Your task to perform on an android device: create a new album in the google photos Image 0: 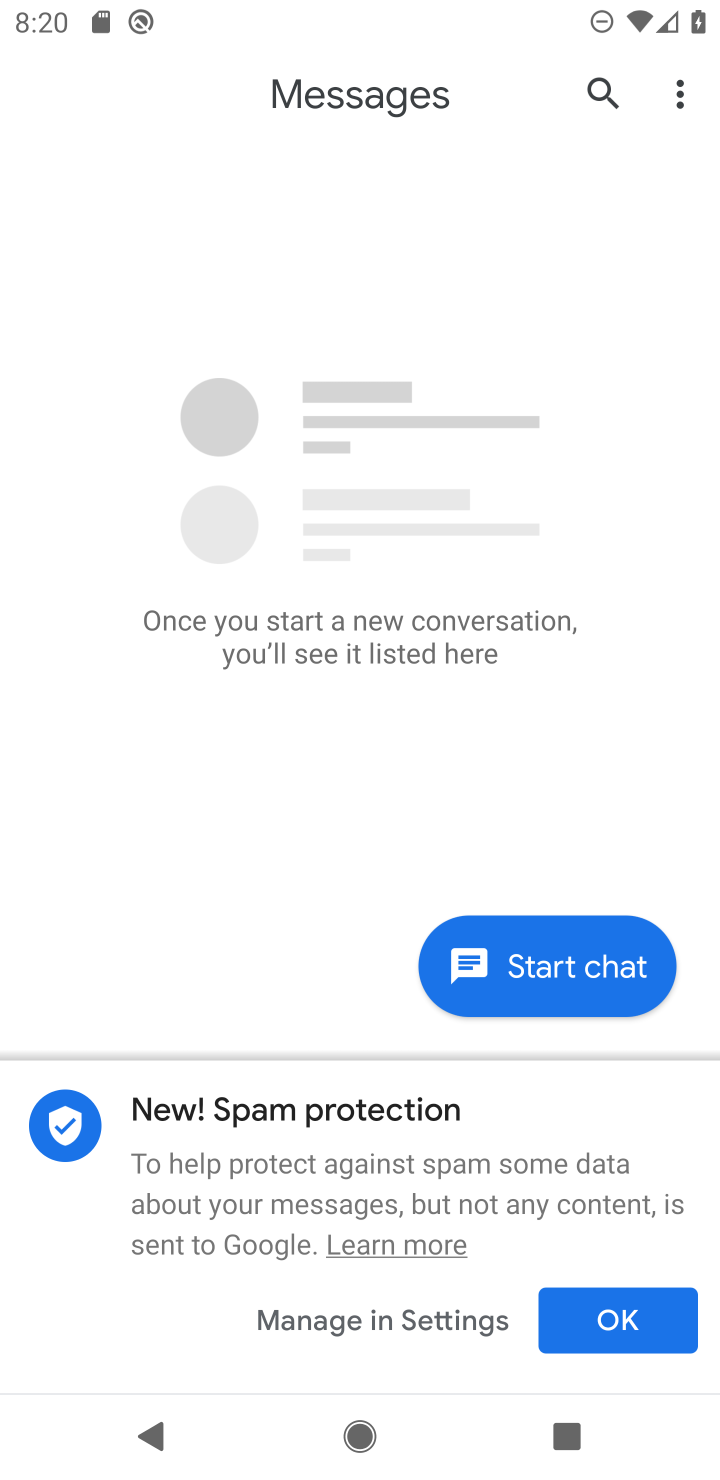
Step 0: press home button
Your task to perform on an android device: create a new album in the google photos Image 1: 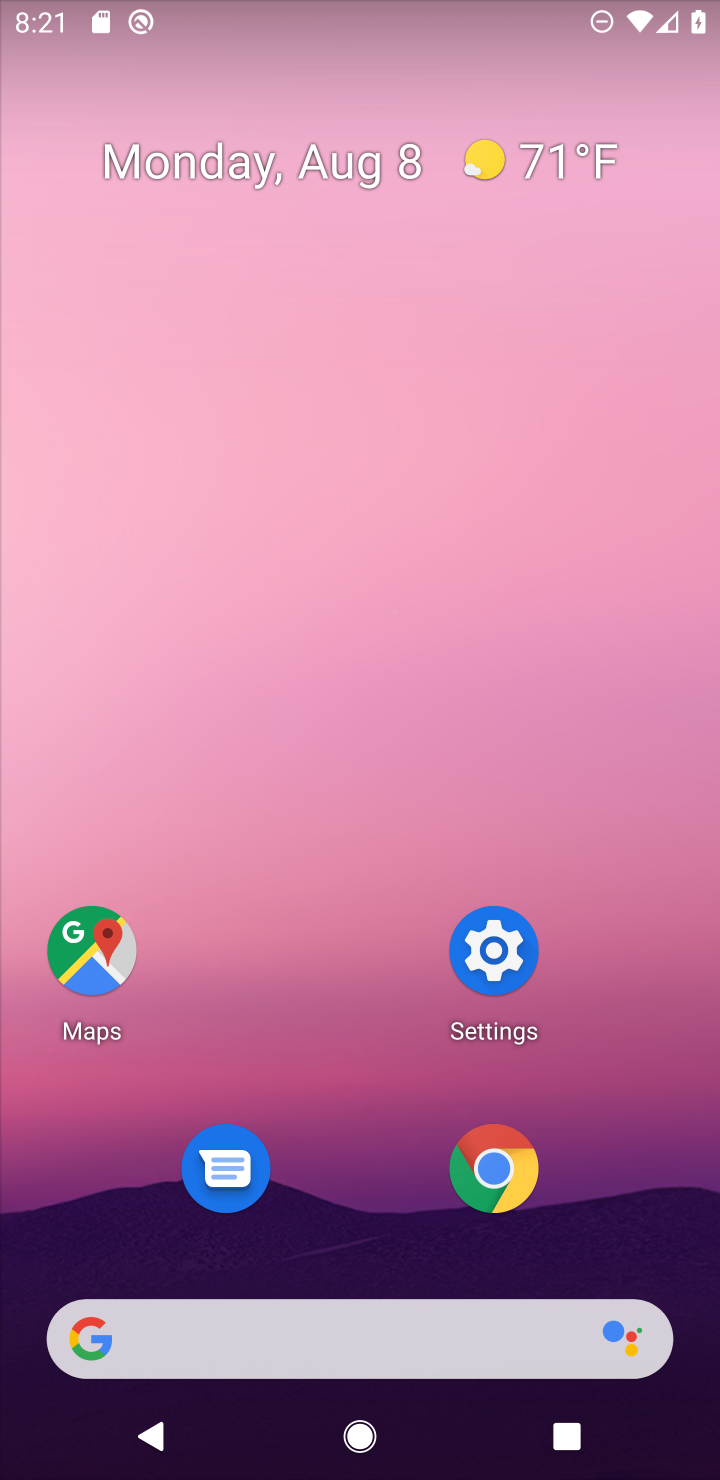
Step 1: drag from (358, 1281) to (639, 320)
Your task to perform on an android device: create a new album in the google photos Image 2: 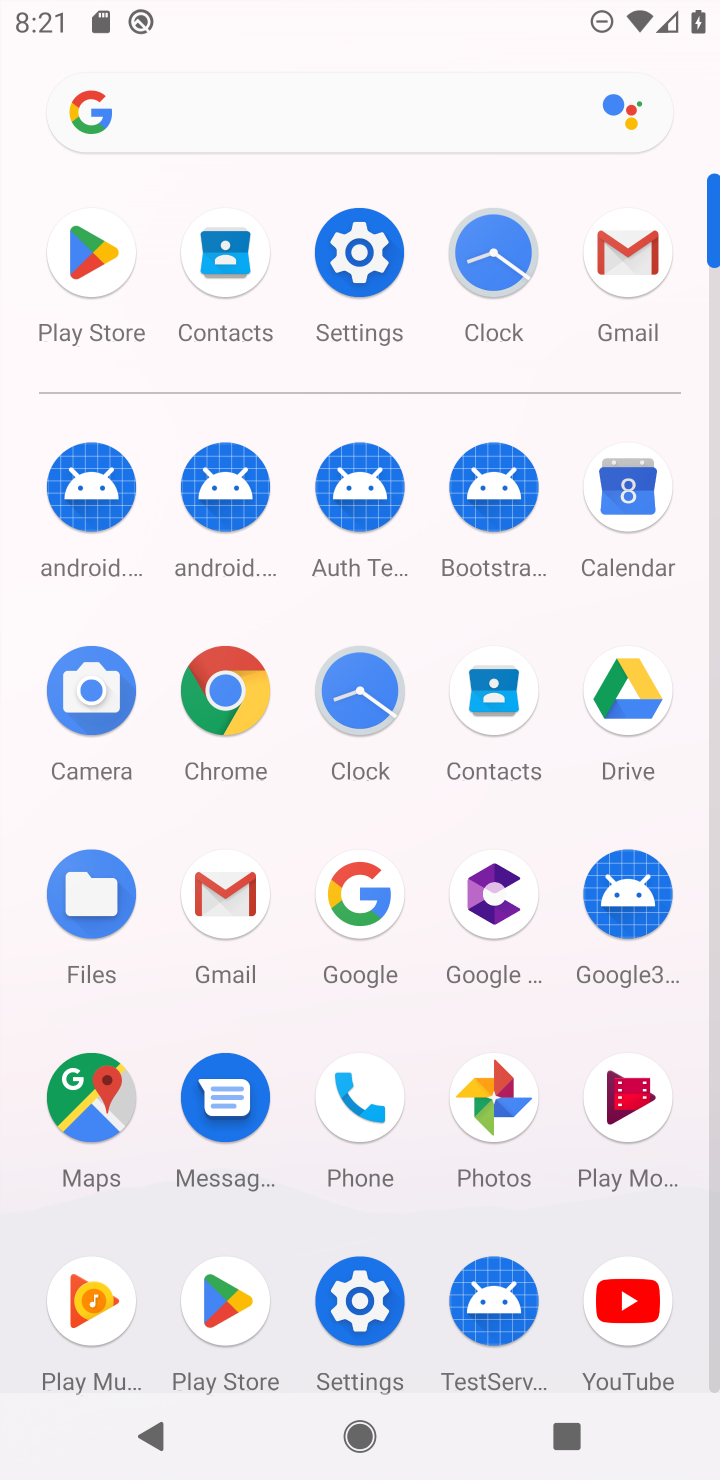
Step 2: click (502, 1091)
Your task to perform on an android device: create a new album in the google photos Image 3: 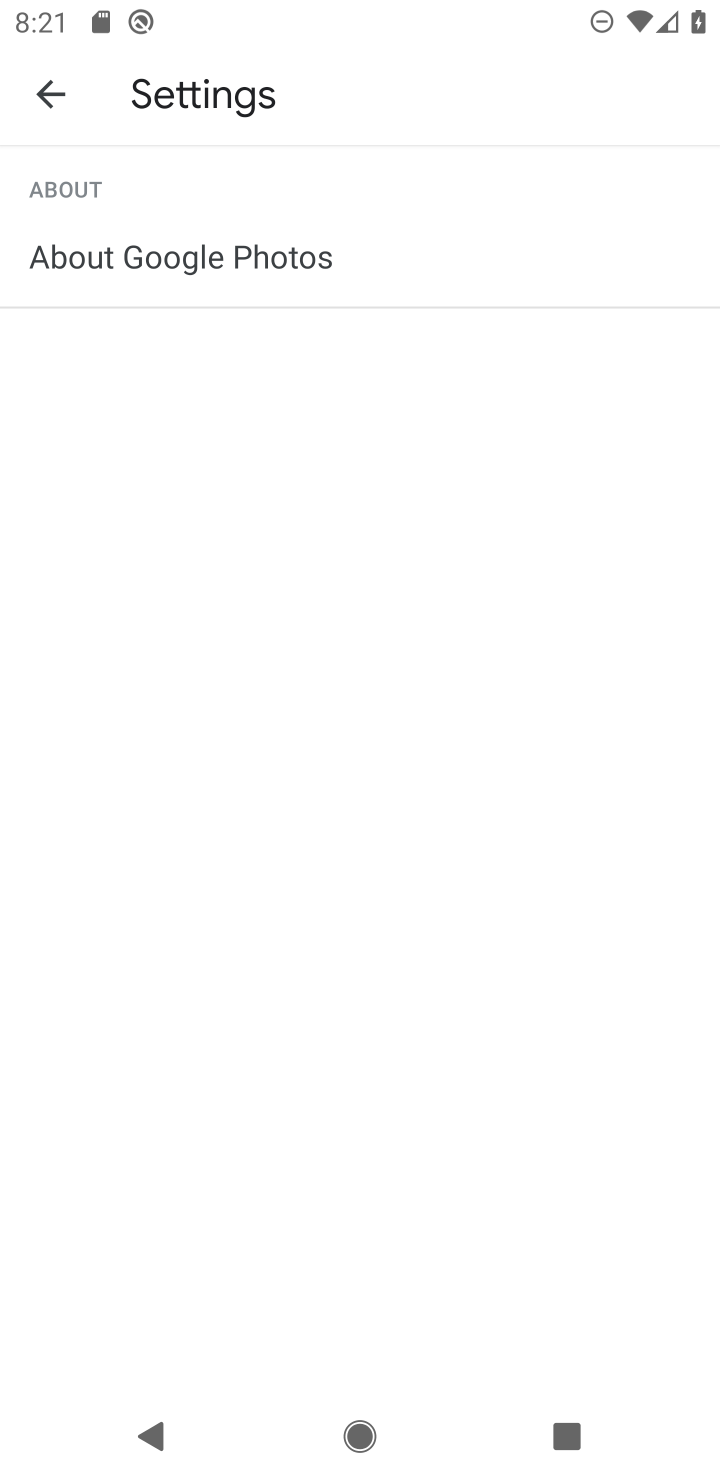
Step 3: click (47, 82)
Your task to perform on an android device: create a new album in the google photos Image 4: 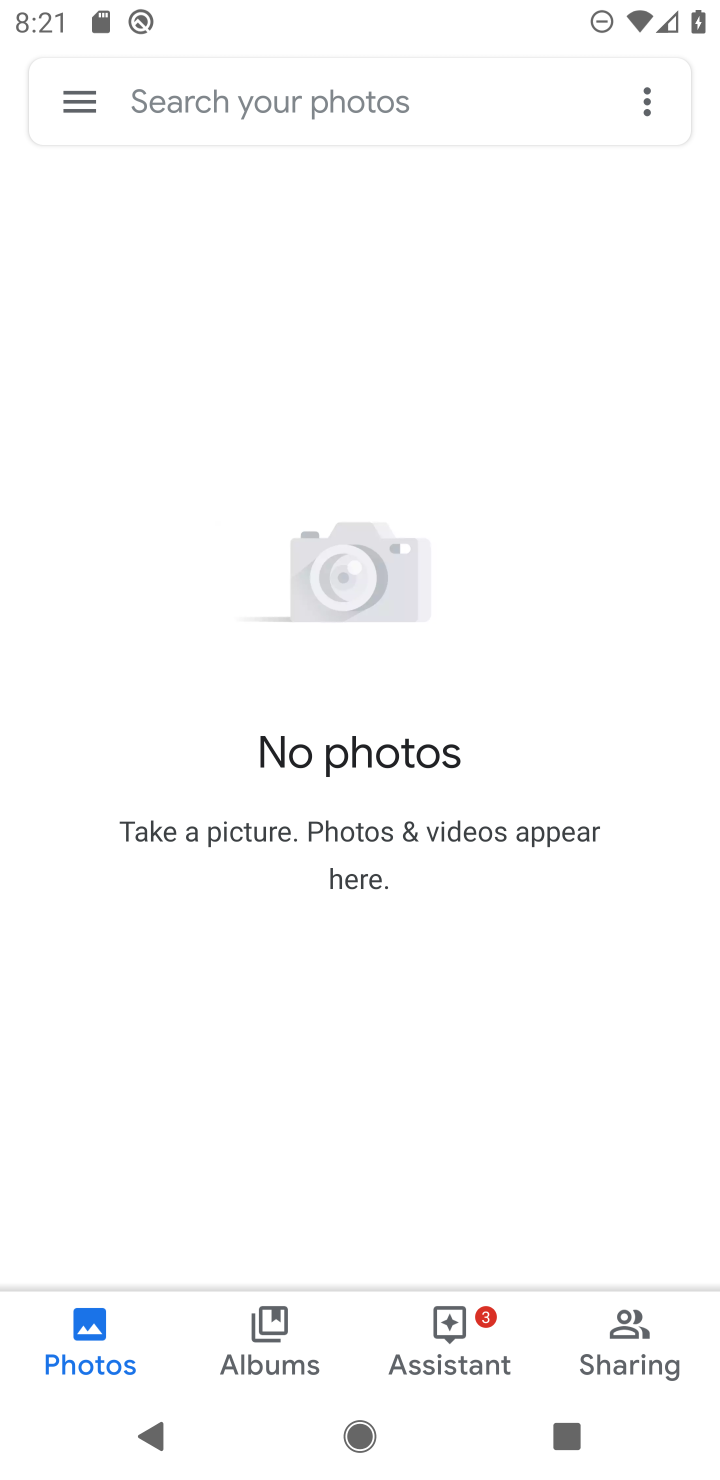
Step 4: click (265, 1323)
Your task to perform on an android device: create a new album in the google photos Image 5: 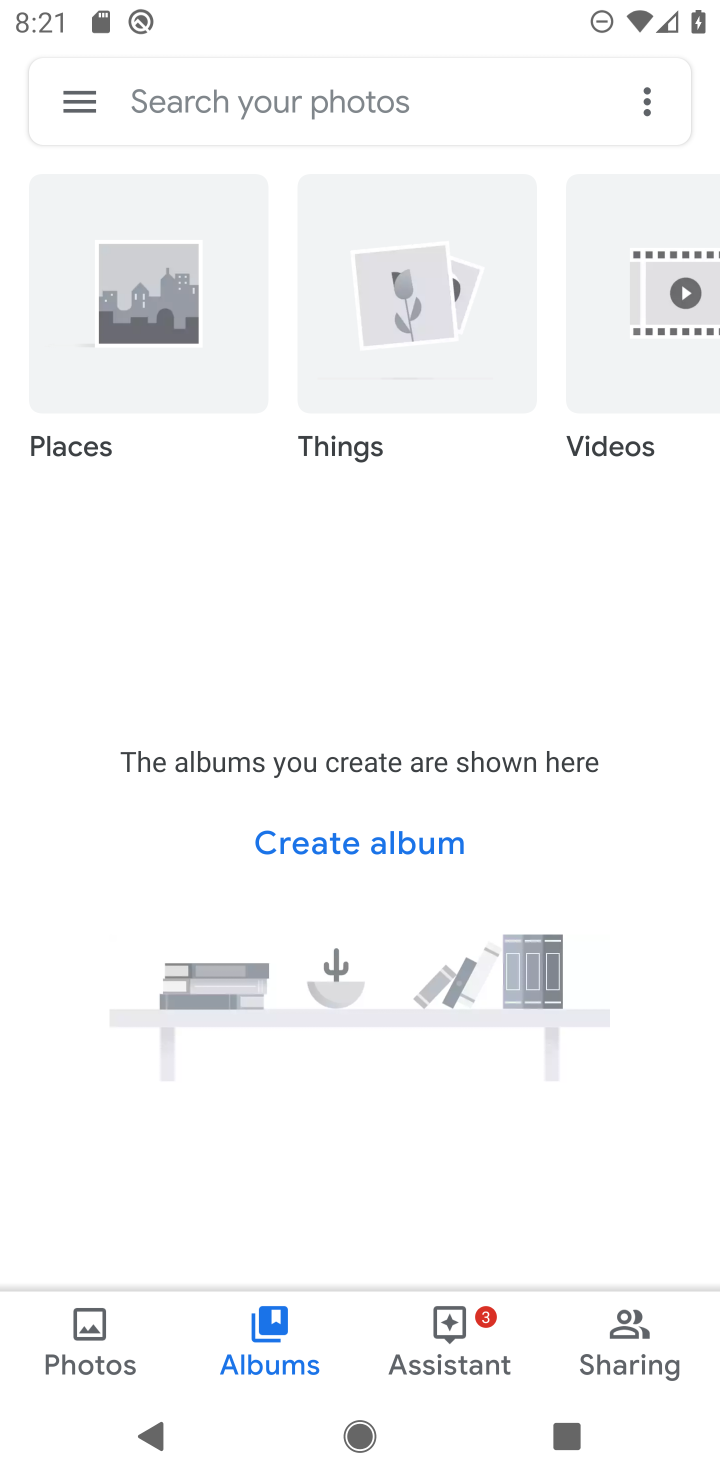
Step 5: task complete